Your task to perform on an android device: turn on bluetooth scan Image 0: 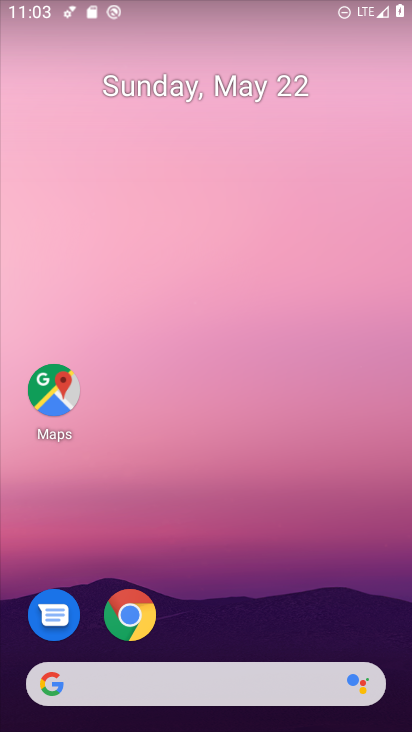
Step 0: drag from (272, 550) to (183, 83)
Your task to perform on an android device: turn on bluetooth scan Image 1: 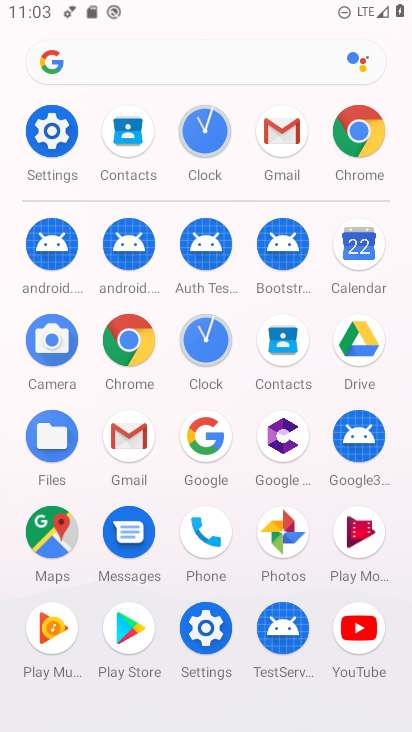
Step 1: click (39, 128)
Your task to perform on an android device: turn on bluetooth scan Image 2: 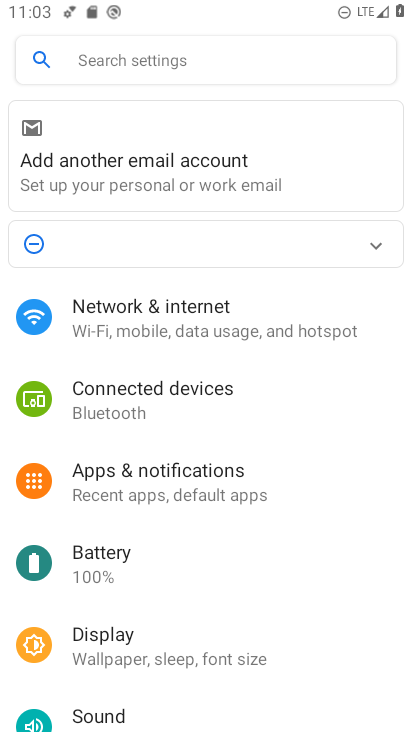
Step 2: drag from (257, 403) to (300, 211)
Your task to perform on an android device: turn on bluetooth scan Image 3: 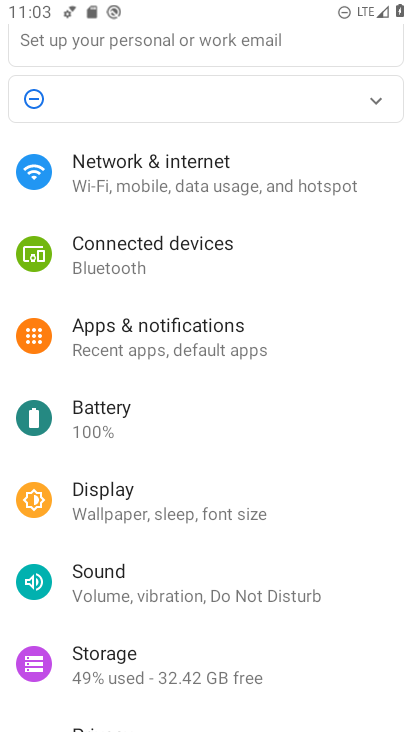
Step 3: drag from (199, 556) to (201, 715)
Your task to perform on an android device: turn on bluetooth scan Image 4: 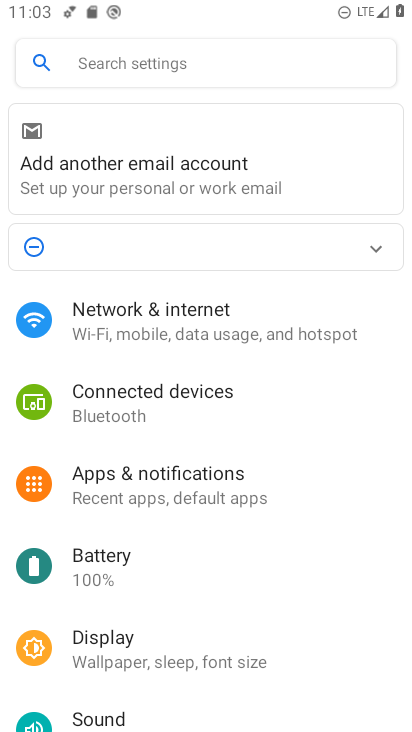
Step 4: click (205, 343)
Your task to perform on an android device: turn on bluetooth scan Image 5: 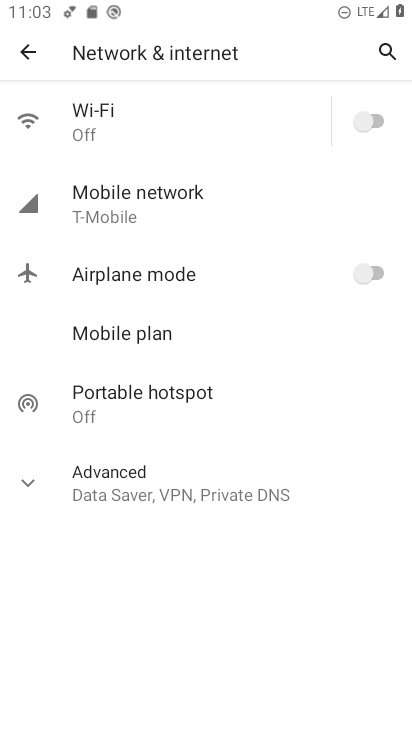
Step 5: click (36, 52)
Your task to perform on an android device: turn on bluetooth scan Image 6: 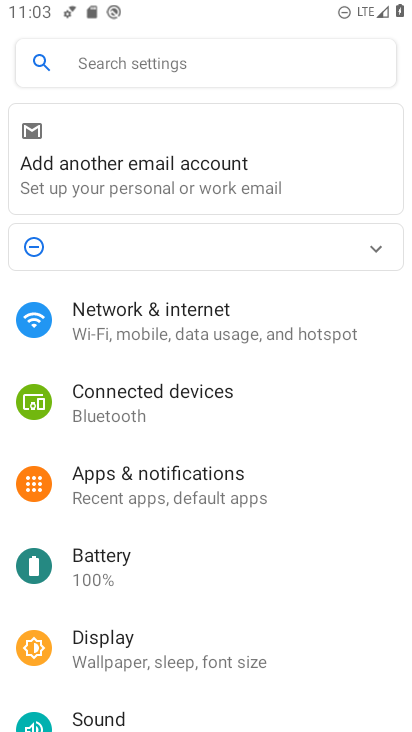
Step 6: click (224, 415)
Your task to perform on an android device: turn on bluetooth scan Image 7: 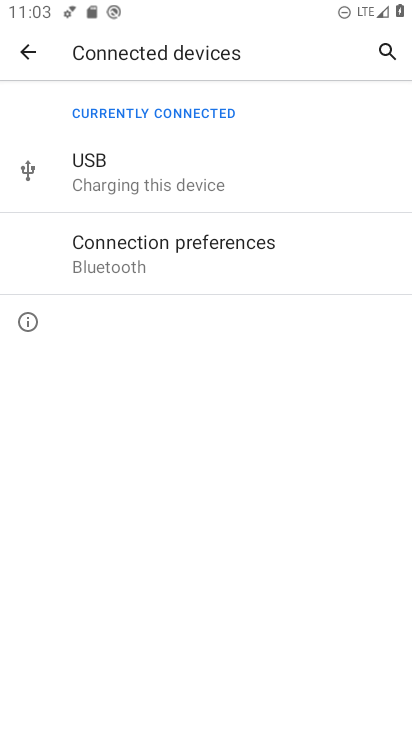
Step 7: click (93, 246)
Your task to perform on an android device: turn on bluetooth scan Image 8: 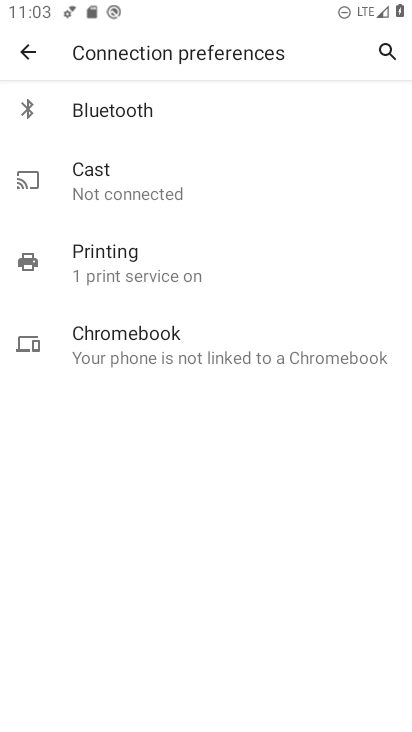
Step 8: click (30, 58)
Your task to perform on an android device: turn on bluetooth scan Image 9: 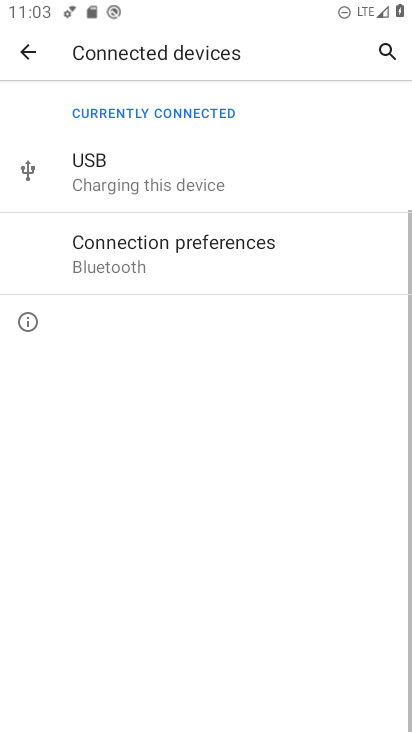
Step 9: click (30, 58)
Your task to perform on an android device: turn on bluetooth scan Image 10: 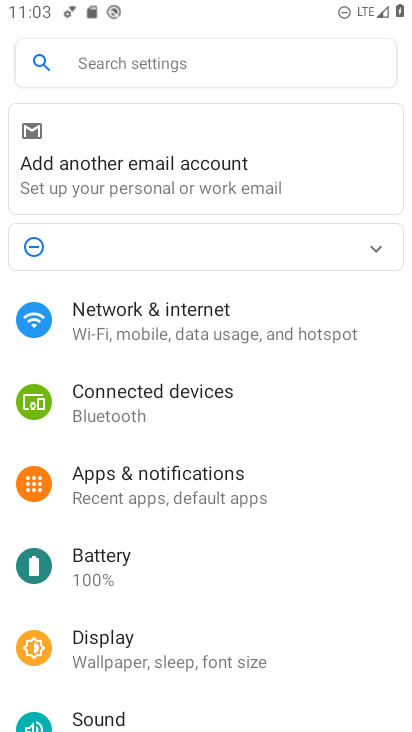
Step 10: drag from (203, 620) to (268, 182)
Your task to perform on an android device: turn on bluetooth scan Image 11: 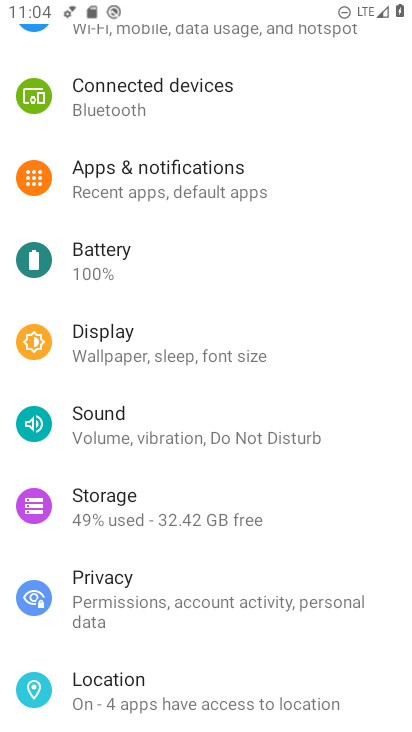
Step 11: drag from (158, 578) to (295, 308)
Your task to perform on an android device: turn on bluetooth scan Image 12: 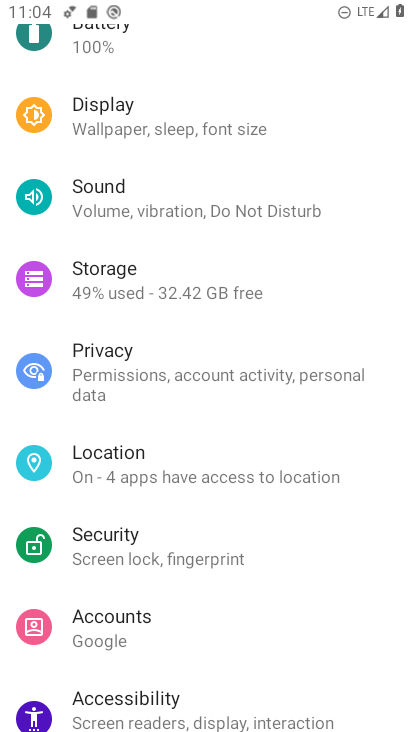
Step 12: click (174, 479)
Your task to perform on an android device: turn on bluetooth scan Image 13: 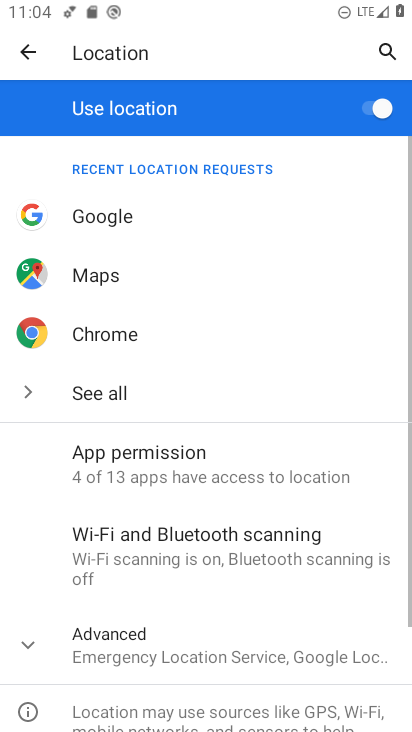
Step 13: click (215, 659)
Your task to perform on an android device: turn on bluetooth scan Image 14: 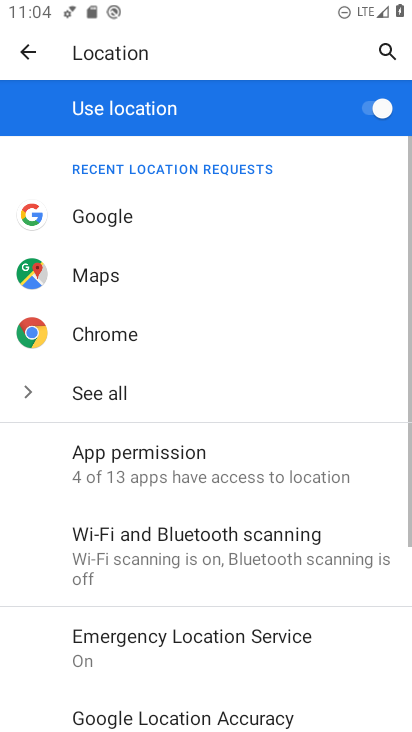
Step 14: drag from (251, 660) to (307, 178)
Your task to perform on an android device: turn on bluetooth scan Image 15: 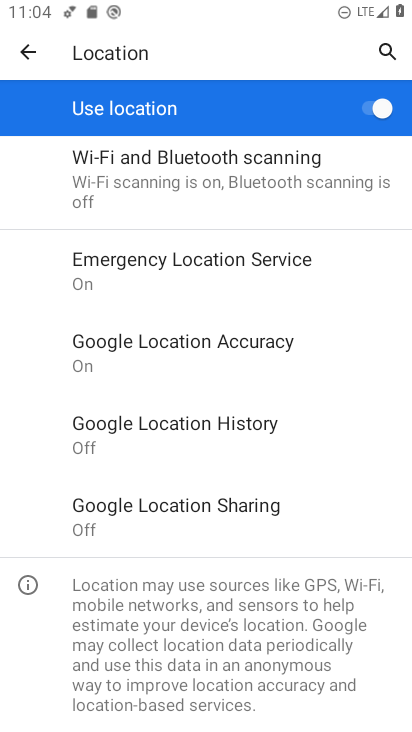
Step 15: drag from (277, 243) to (230, 620)
Your task to perform on an android device: turn on bluetooth scan Image 16: 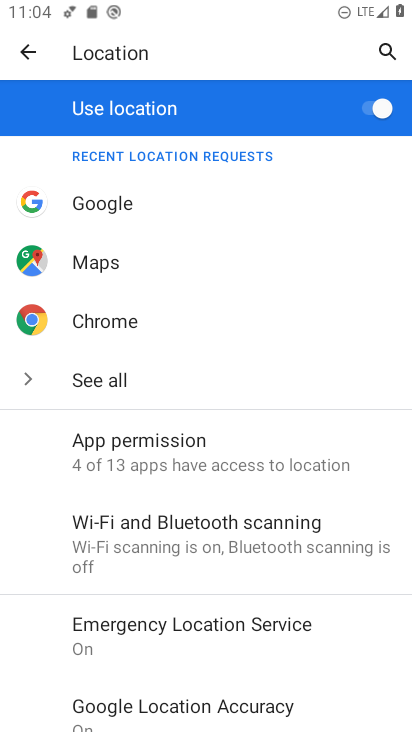
Step 16: click (194, 563)
Your task to perform on an android device: turn on bluetooth scan Image 17: 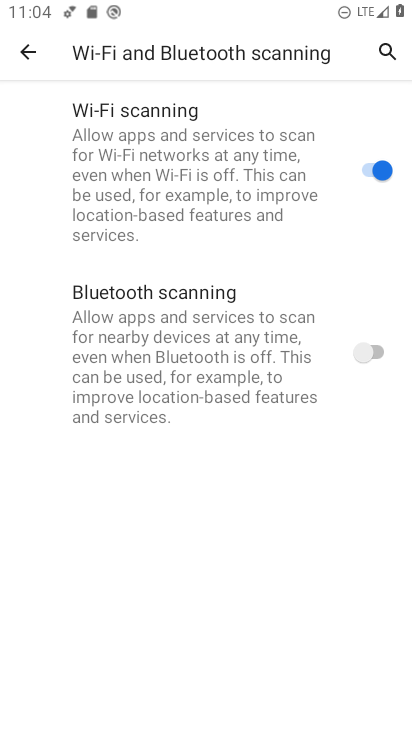
Step 17: click (375, 346)
Your task to perform on an android device: turn on bluetooth scan Image 18: 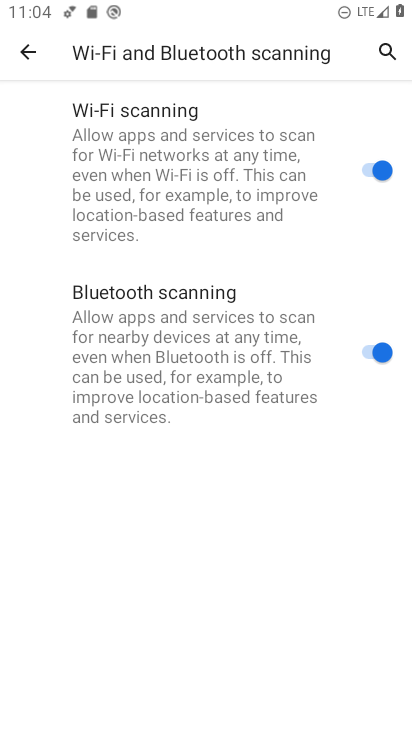
Step 18: task complete